Your task to perform on an android device: refresh tabs in the chrome app Image 0: 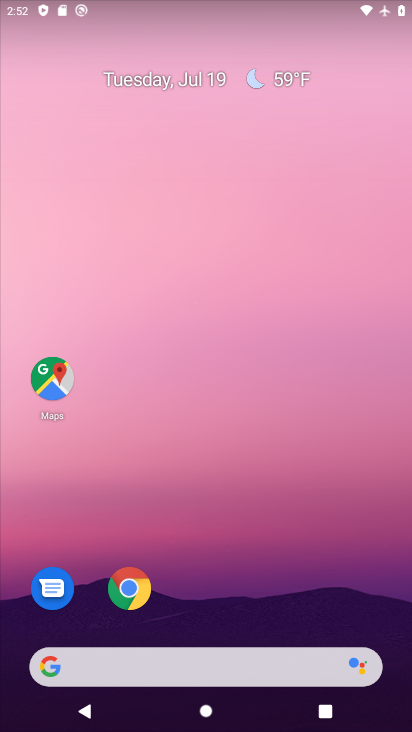
Step 0: drag from (274, 599) to (293, 187)
Your task to perform on an android device: refresh tabs in the chrome app Image 1: 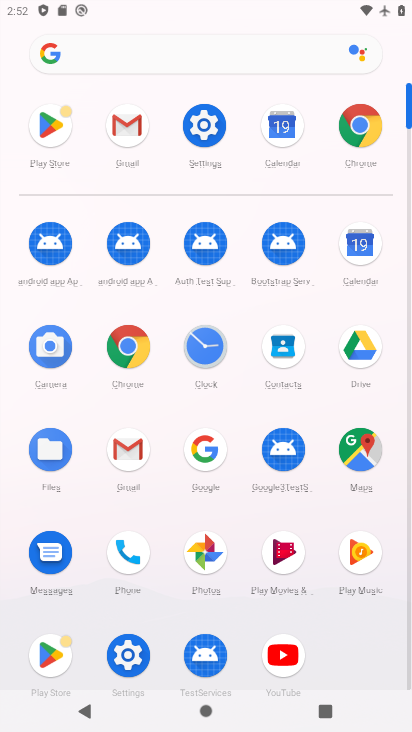
Step 1: click (131, 341)
Your task to perform on an android device: refresh tabs in the chrome app Image 2: 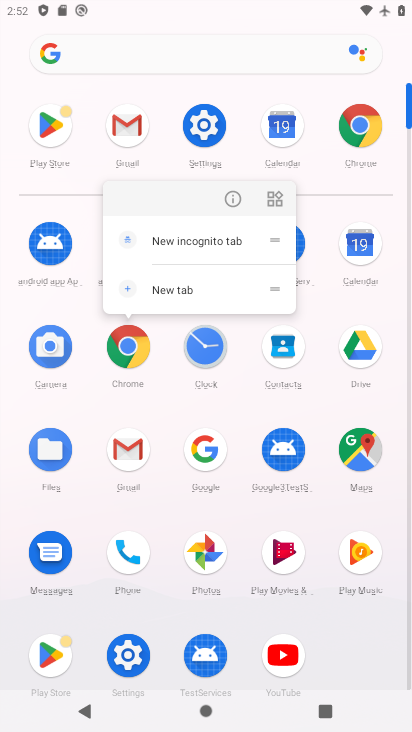
Step 2: click (128, 353)
Your task to perform on an android device: refresh tabs in the chrome app Image 3: 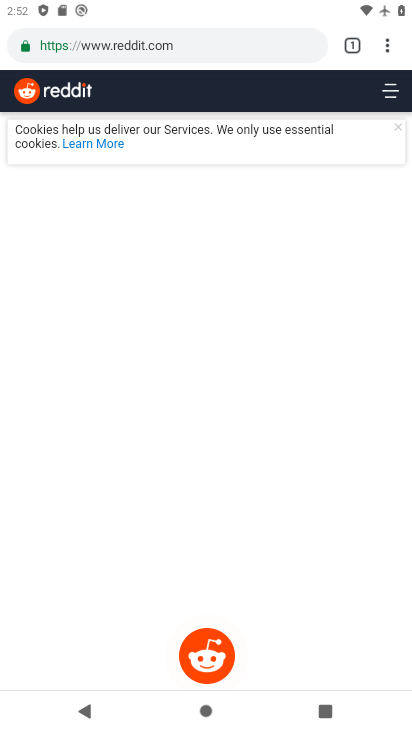
Step 3: click (390, 40)
Your task to perform on an android device: refresh tabs in the chrome app Image 4: 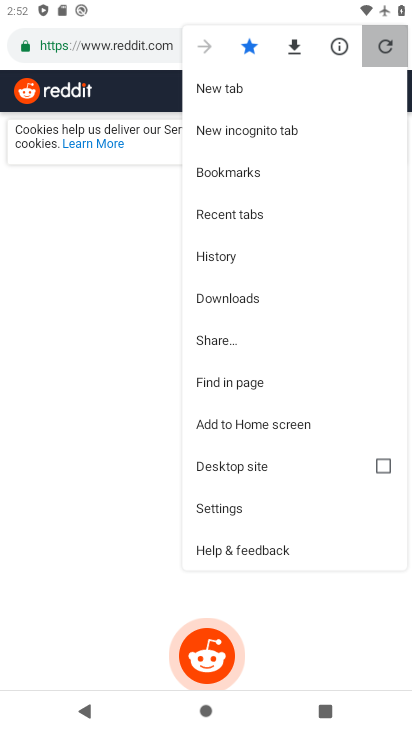
Step 4: click (390, 40)
Your task to perform on an android device: refresh tabs in the chrome app Image 5: 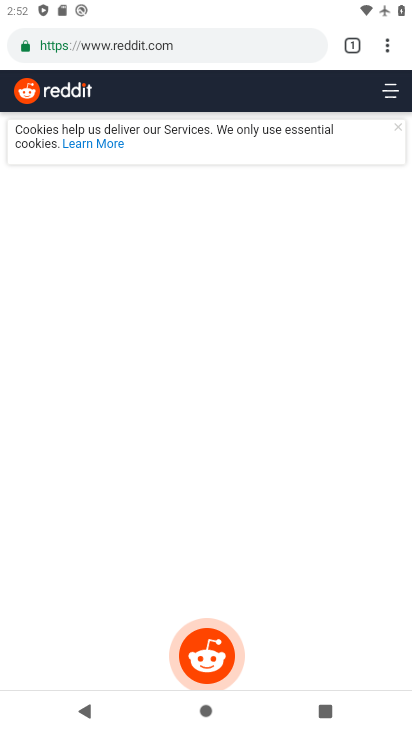
Step 5: task complete